Your task to perform on an android device: Open Chrome and go to settings Image 0: 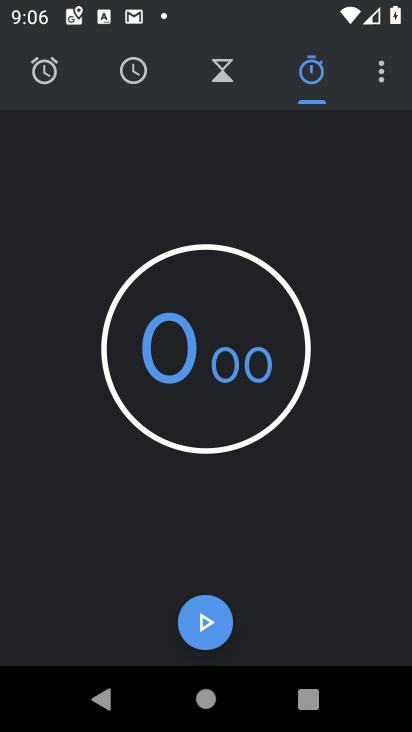
Step 0: press home button
Your task to perform on an android device: Open Chrome and go to settings Image 1: 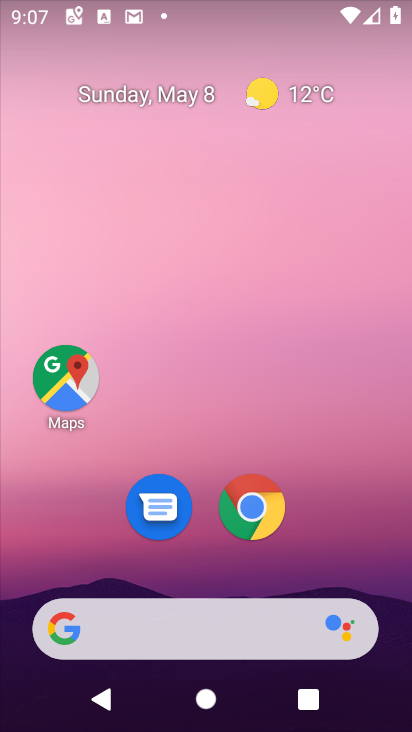
Step 1: click (233, 513)
Your task to perform on an android device: Open Chrome and go to settings Image 2: 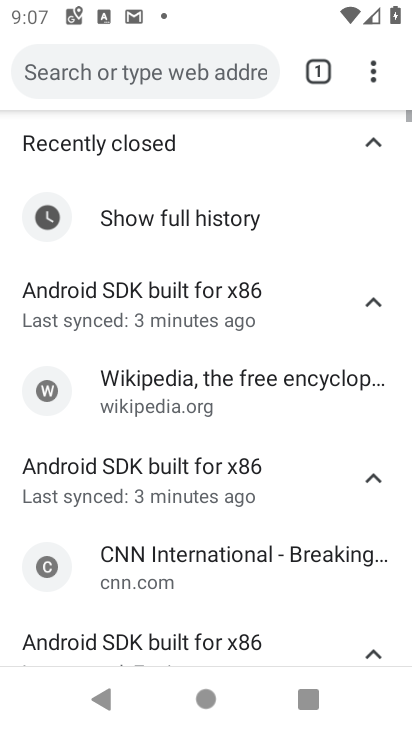
Step 2: drag from (374, 77) to (196, 509)
Your task to perform on an android device: Open Chrome and go to settings Image 3: 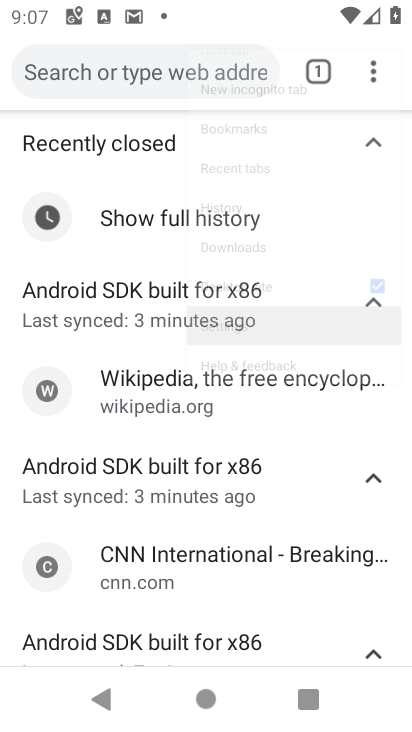
Step 3: click (196, 509)
Your task to perform on an android device: Open Chrome and go to settings Image 4: 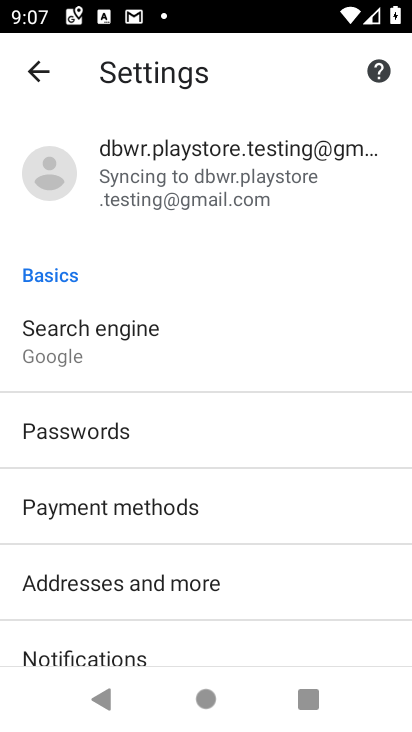
Step 4: task complete